Your task to perform on an android device: Check the news Image 0: 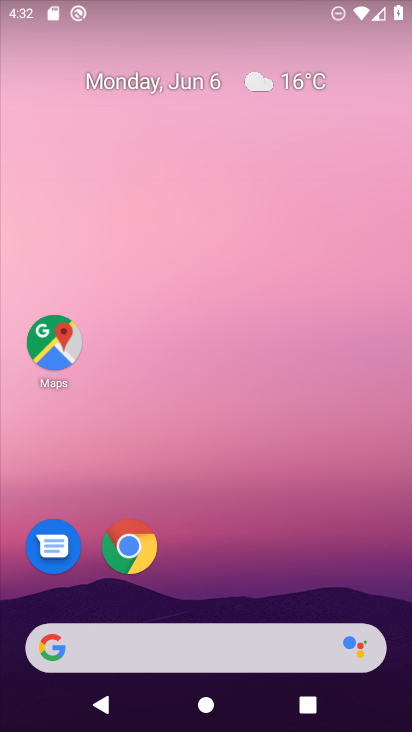
Step 0: drag from (196, 610) to (11, 369)
Your task to perform on an android device: Check the news Image 1: 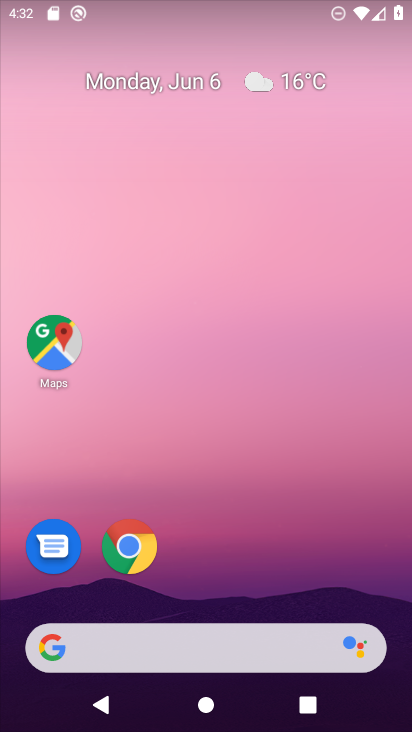
Step 1: click (204, 654)
Your task to perform on an android device: Check the news Image 2: 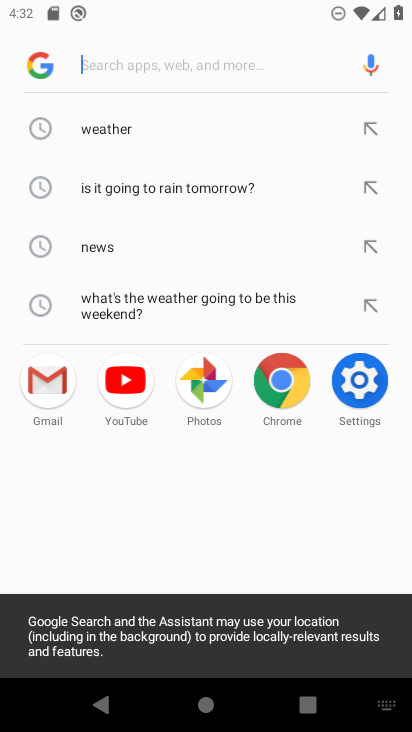
Step 2: click (111, 235)
Your task to perform on an android device: Check the news Image 3: 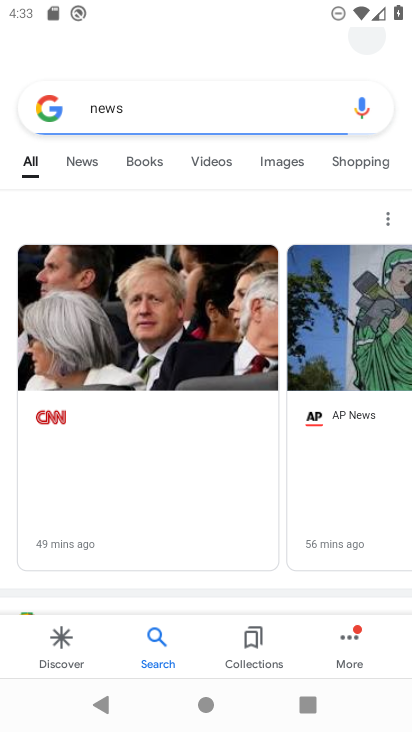
Step 3: task complete